Your task to perform on an android device: turn off data saver in the chrome app Image 0: 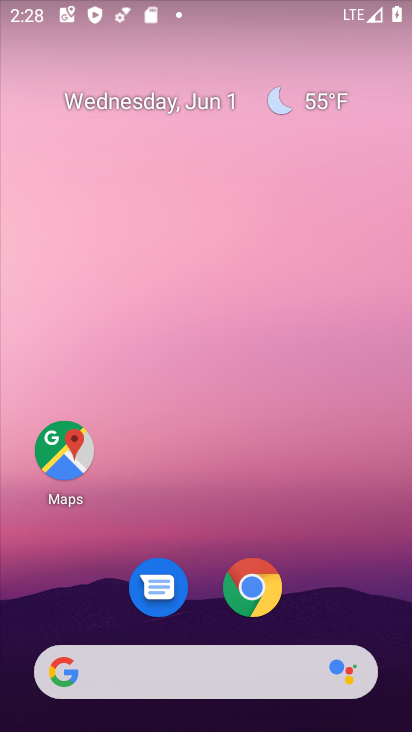
Step 0: click (265, 606)
Your task to perform on an android device: turn off data saver in the chrome app Image 1: 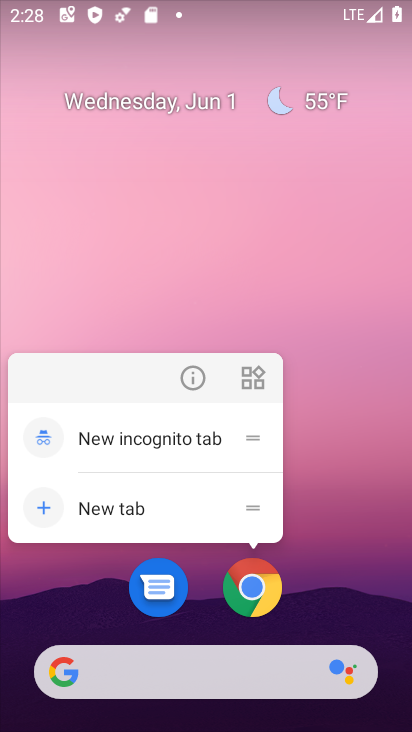
Step 1: click (264, 606)
Your task to perform on an android device: turn off data saver in the chrome app Image 2: 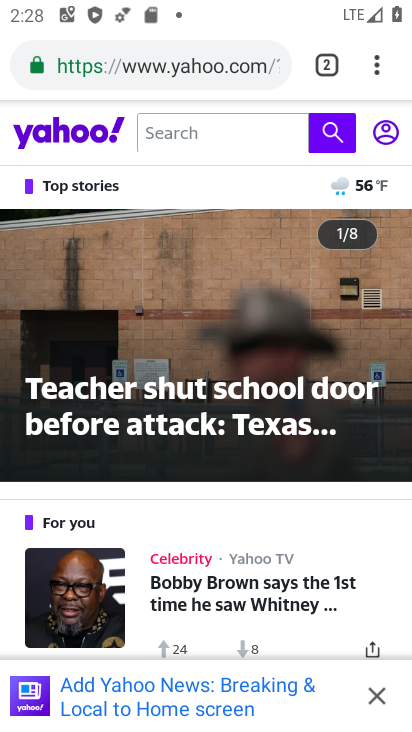
Step 2: click (384, 60)
Your task to perform on an android device: turn off data saver in the chrome app Image 3: 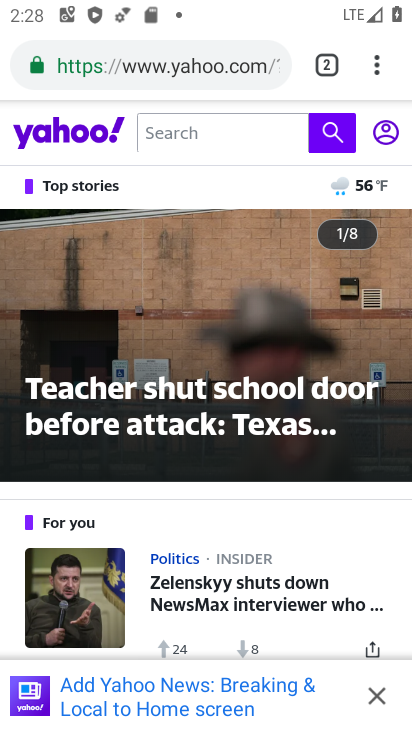
Step 3: drag from (384, 60) to (190, 631)
Your task to perform on an android device: turn off data saver in the chrome app Image 4: 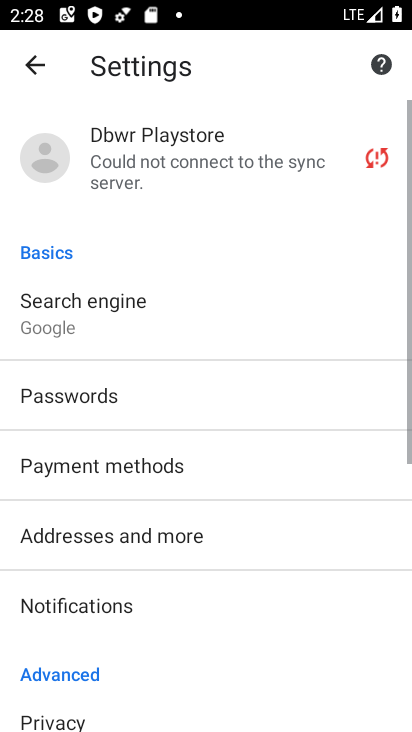
Step 4: drag from (154, 583) to (123, 140)
Your task to perform on an android device: turn off data saver in the chrome app Image 5: 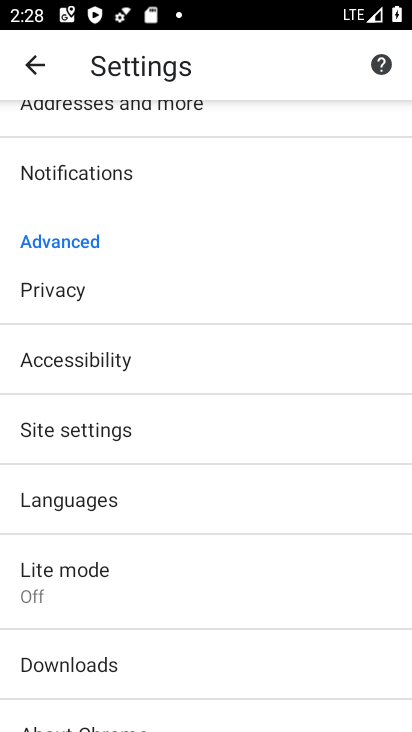
Step 5: click (121, 554)
Your task to perform on an android device: turn off data saver in the chrome app Image 6: 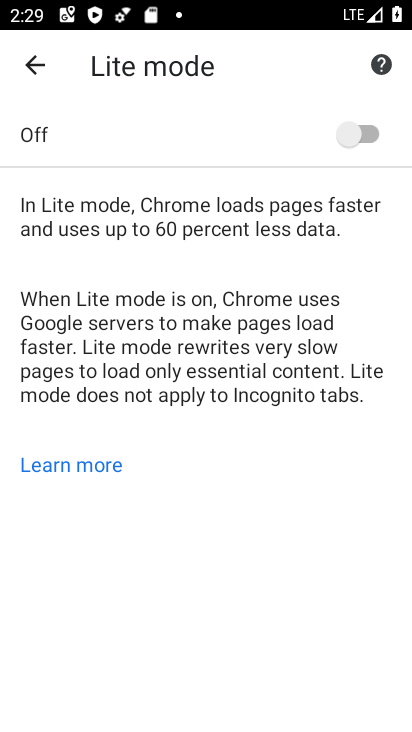
Step 6: task complete